Your task to perform on an android device: find snoozed emails in the gmail app Image 0: 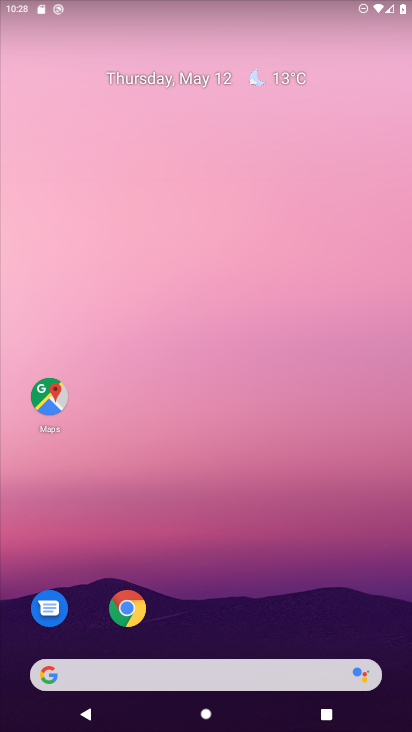
Step 0: drag from (210, 611) to (209, 121)
Your task to perform on an android device: find snoozed emails in the gmail app Image 1: 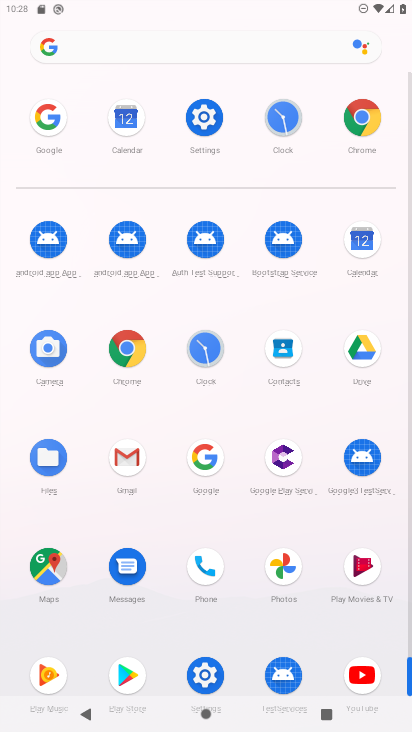
Step 1: click (131, 459)
Your task to perform on an android device: find snoozed emails in the gmail app Image 2: 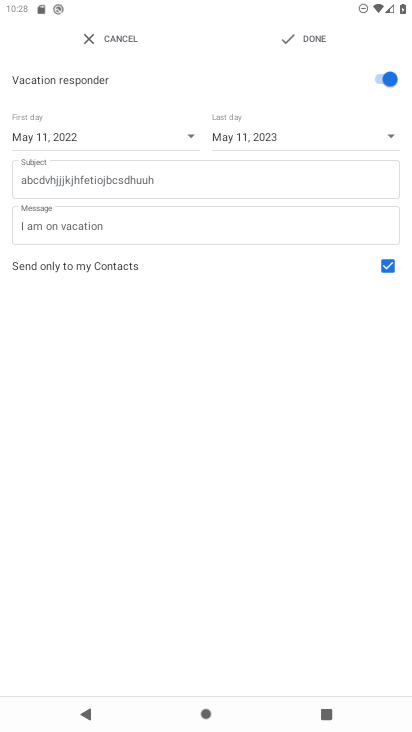
Step 2: press back button
Your task to perform on an android device: find snoozed emails in the gmail app Image 3: 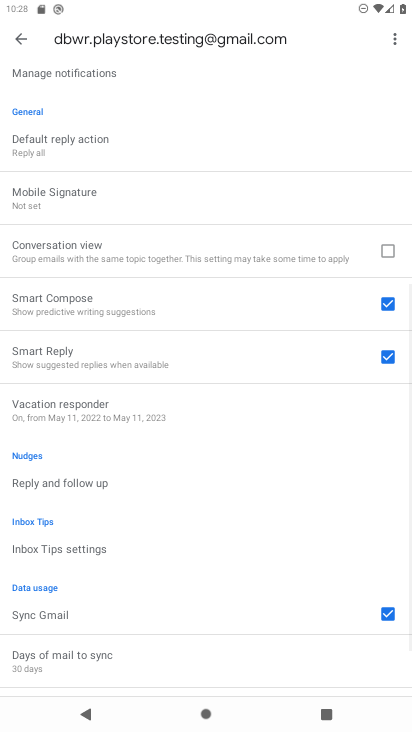
Step 3: press back button
Your task to perform on an android device: find snoozed emails in the gmail app Image 4: 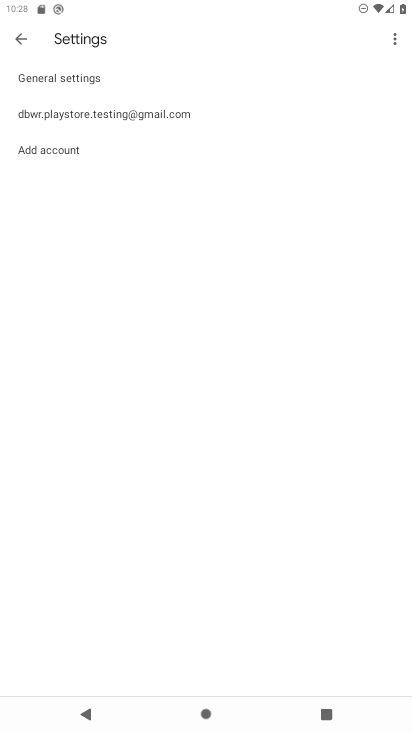
Step 4: press back button
Your task to perform on an android device: find snoozed emails in the gmail app Image 5: 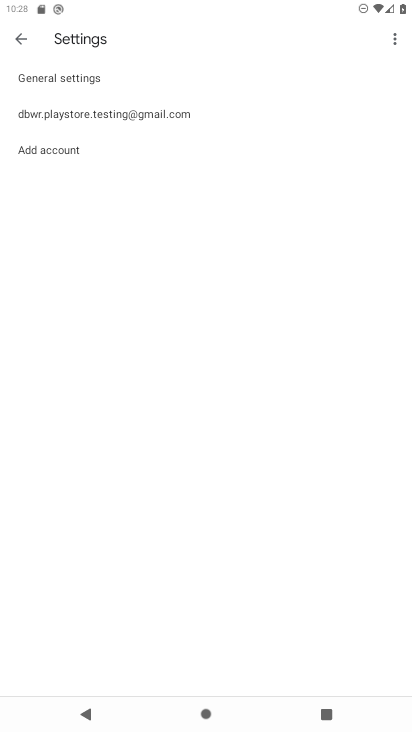
Step 5: press back button
Your task to perform on an android device: find snoozed emails in the gmail app Image 6: 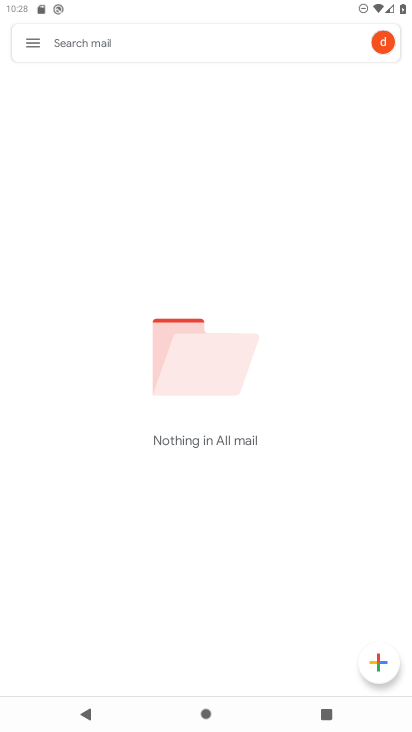
Step 6: click (42, 40)
Your task to perform on an android device: find snoozed emails in the gmail app Image 7: 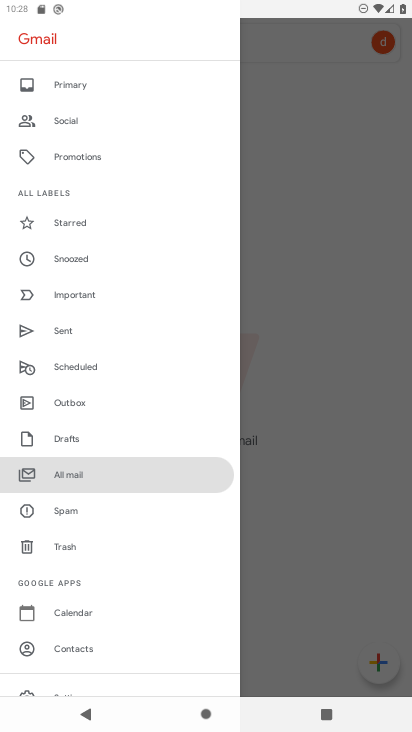
Step 7: click (100, 253)
Your task to perform on an android device: find snoozed emails in the gmail app Image 8: 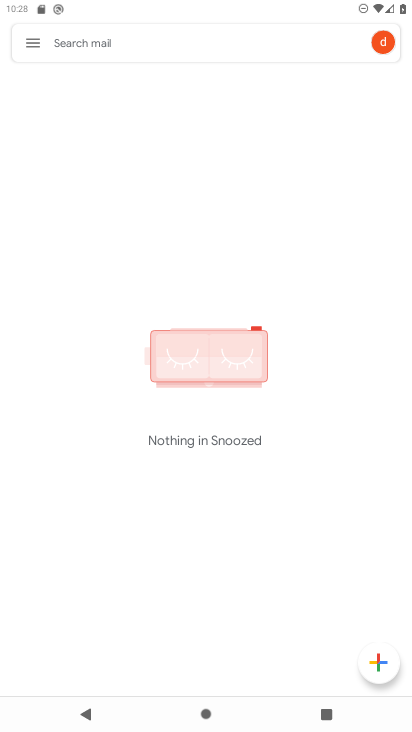
Step 8: task complete